Your task to perform on an android device: turn off location history Image 0: 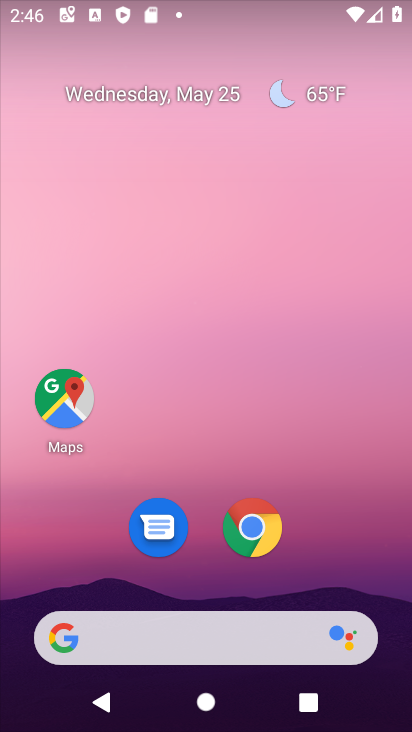
Step 0: drag from (313, 621) to (337, 18)
Your task to perform on an android device: turn off location history Image 1: 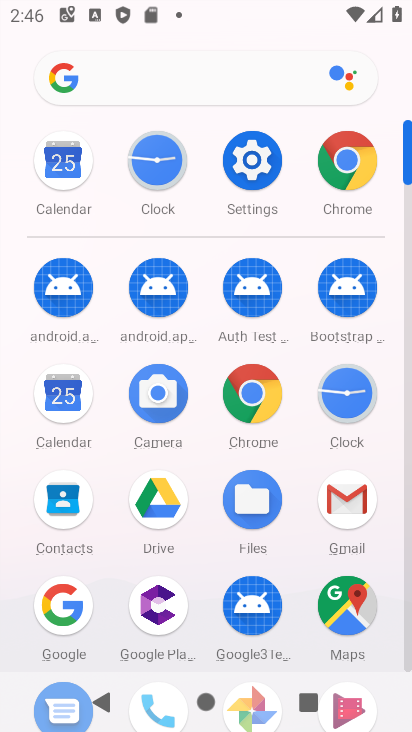
Step 1: click (270, 153)
Your task to perform on an android device: turn off location history Image 2: 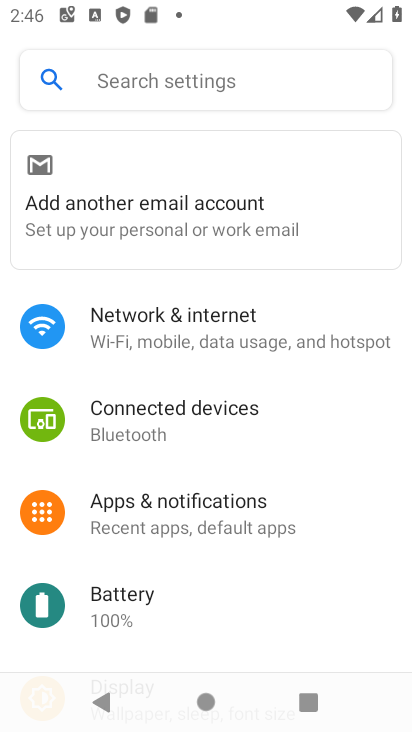
Step 2: drag from (210, 597) to (287, 148)
Your task to perform on an android device: turn off location history Image 3: 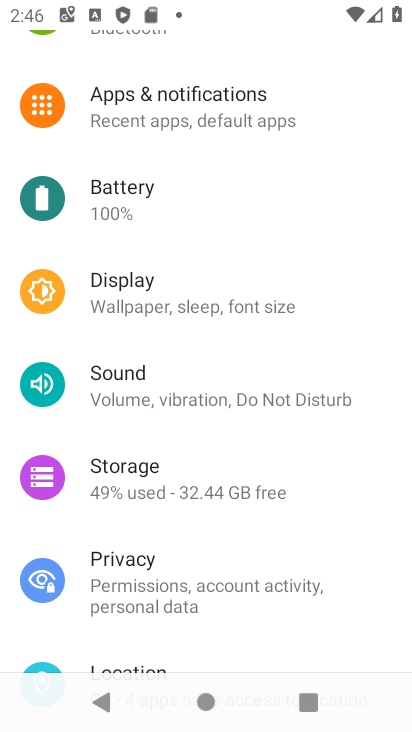
Step 3: drag from (165, 601) to (241, 247)
Your task to perform on an android device: turn off location history Image 4: 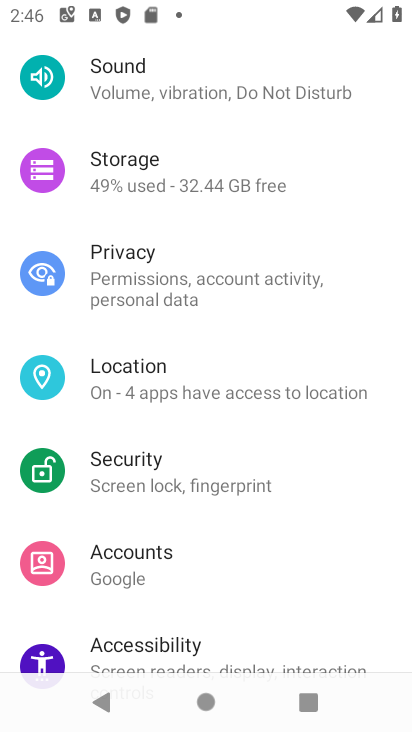
Step 4: click (201, 404)
Your task to perform on an android device: turn off location history Image 5: 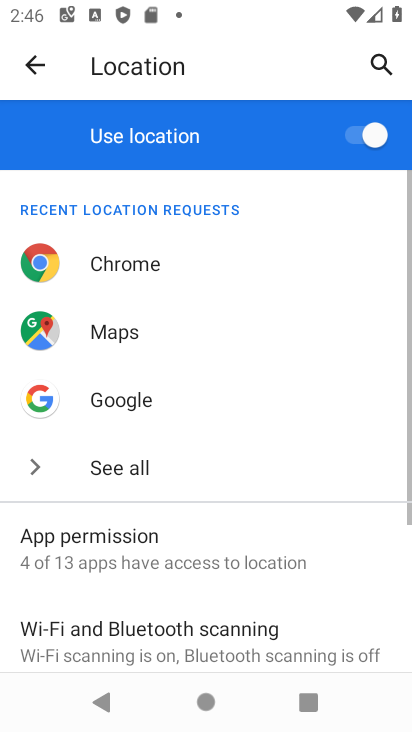
Step 5: drag from (281, 572) to (293, 87)
Your task to perform on an android device: turn off location history Image 6: 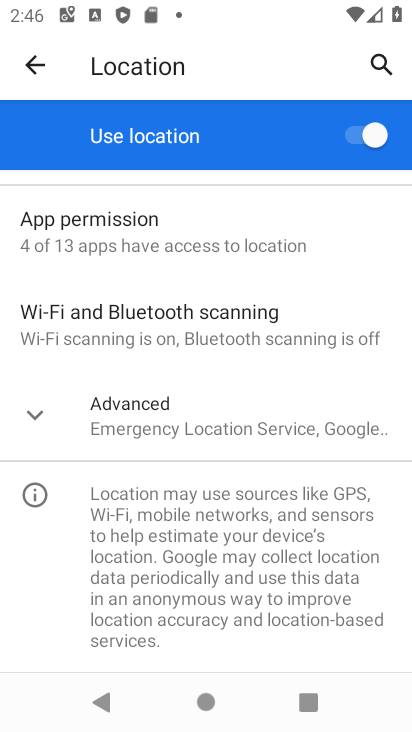
Step 6: click (167, 439)
Your task to perform on an android device: turn off location history Image 7: 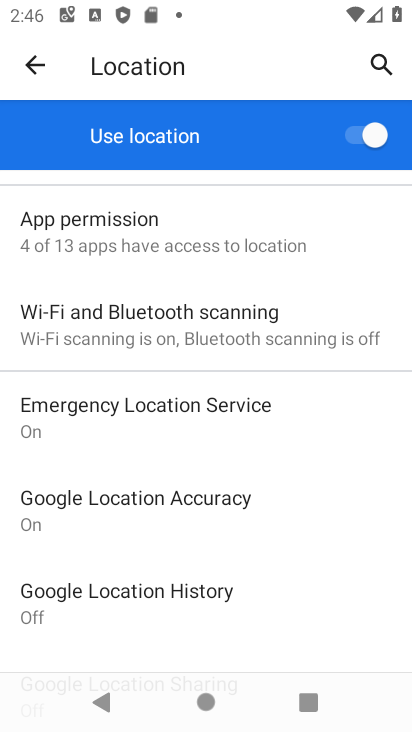
Step 7: click (226, 600)
Your task to perform on an android device: turn off location history Image 8: 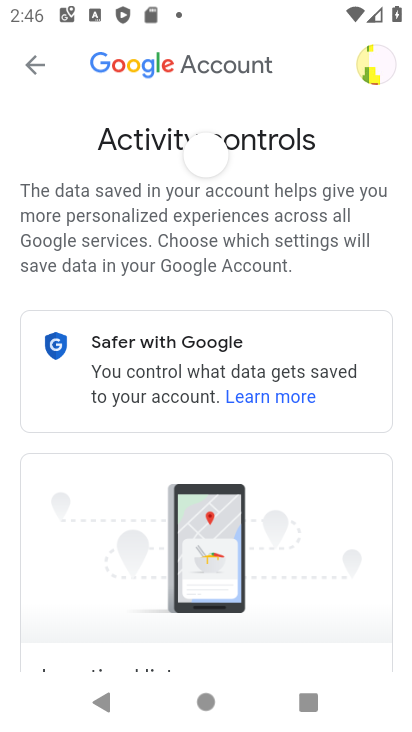
Step 8: drag from (315, 491) to (322, 110)
Your task to perform on an android device: turn off location history Image 9: 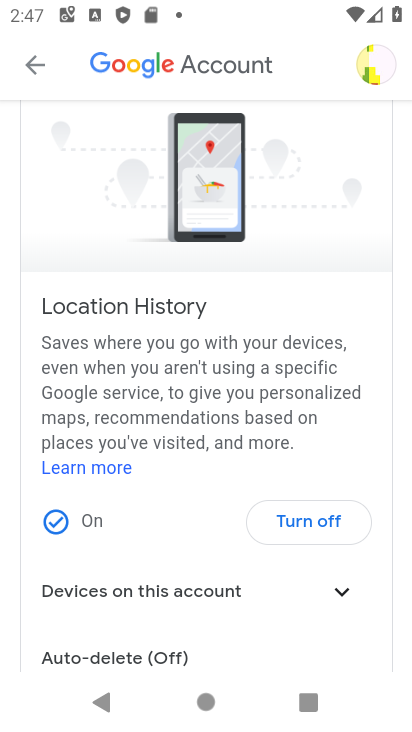
Step 9: click (304, 519)
Your task to perform on an android device: turn off location history Image 10: 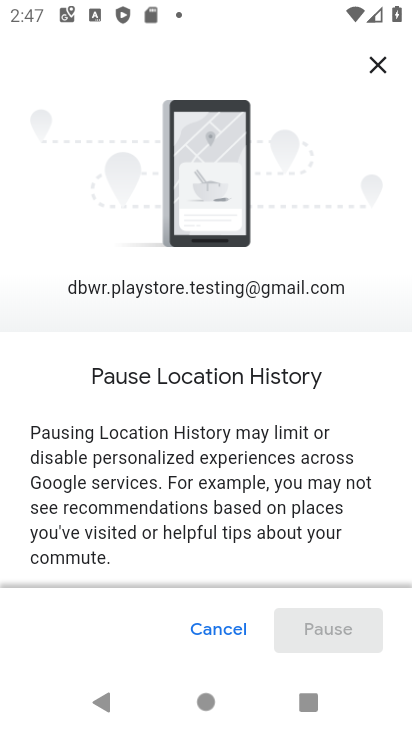
Step 10: drag from (258, 568) to (335, 34)
Your task to perform on an android device: turn off location history Image 11: 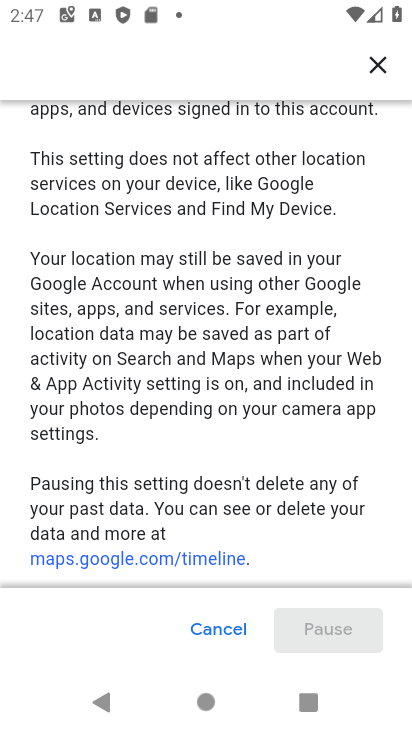
Step 11: drag from (278, 540) to (304, 174)
Your task to perform on an android device: turn off location history Image 12: 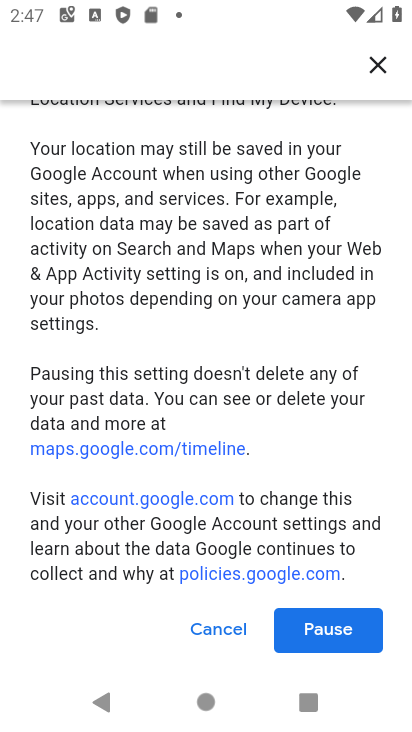
Step 12: click (299, 636)
Your task to perform on an android device: turn off location history Image 13: 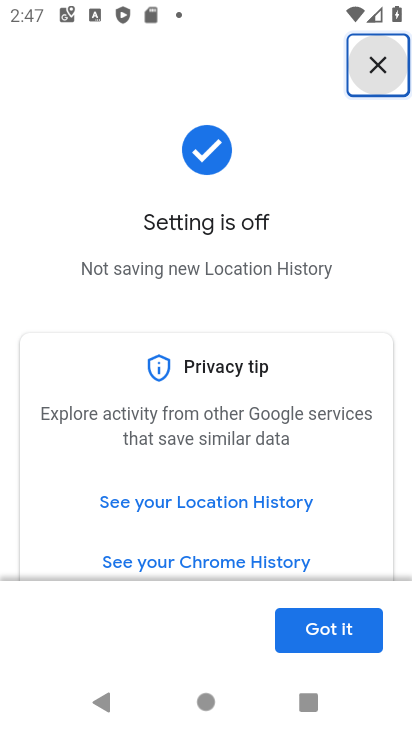
Step 13: task complete